Your task to perform on an android device: open device folders in google photos Image 0: 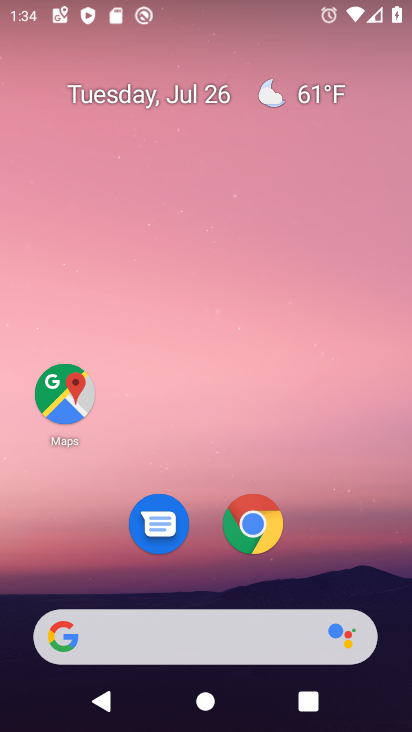
Step 0: press home button
Your task to perform on an android device: open device folders in google photos Image 1: 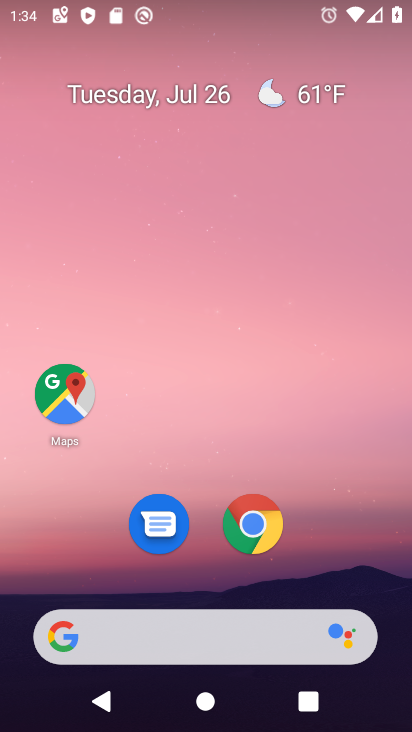
Step 1: drag from (170, 631) to (326, 122)
Your task to perform on an android device: open device folders in google photos Image 2: 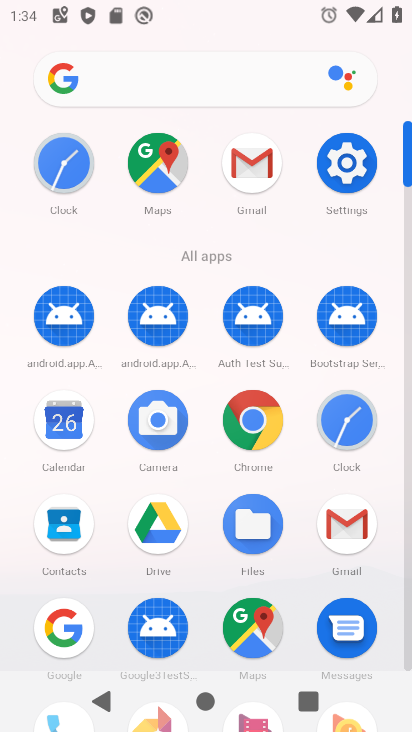
Step 2: drag from (198, 593) to (347, 205)
Your task to perform on an android device: open device folders in google photos Image 3: 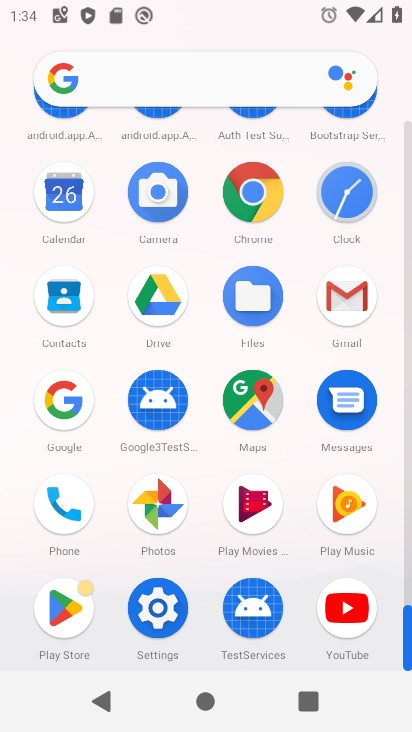
Step 3: click (166, 501)
Your task to perform on an android device: open device folders in google photos Image 4: 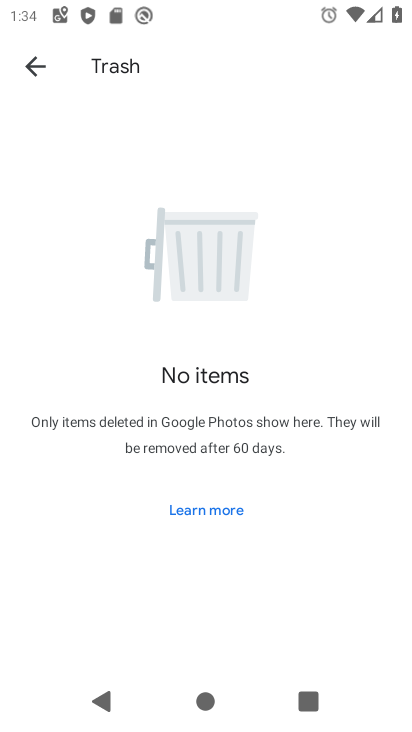
Step 4: click (38, 64)
Your task to perform on an android device: open device folders in google photos Image 5: 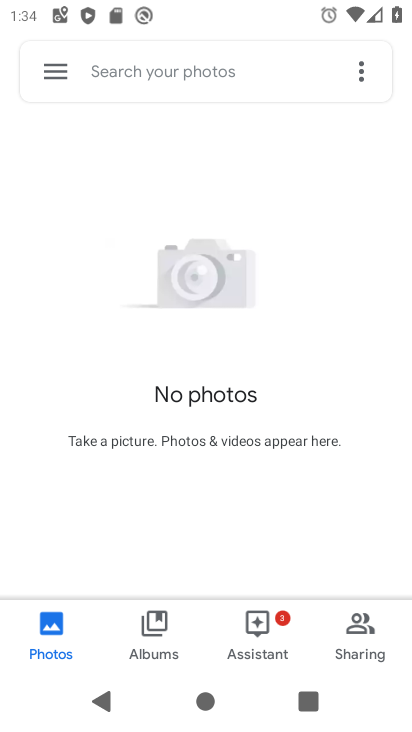
Step 5: click (53, 72)
Your task to perform on an android device: open device folders in google photos Image 6: 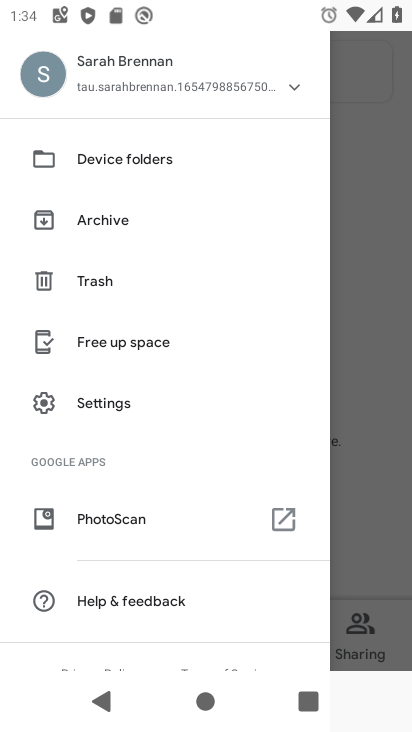
Step 6: click (125, 164)
Your task to perform on an android device: open device folders in google photos Image 7: 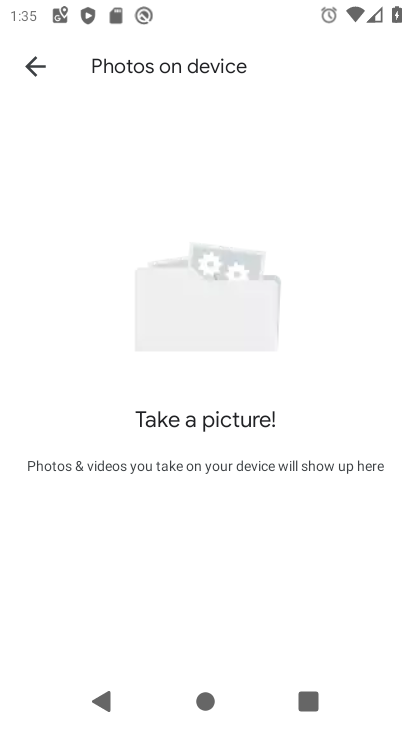
Step 7: task complete